Your task to perform on an android device: Go to Amazon Image 0: 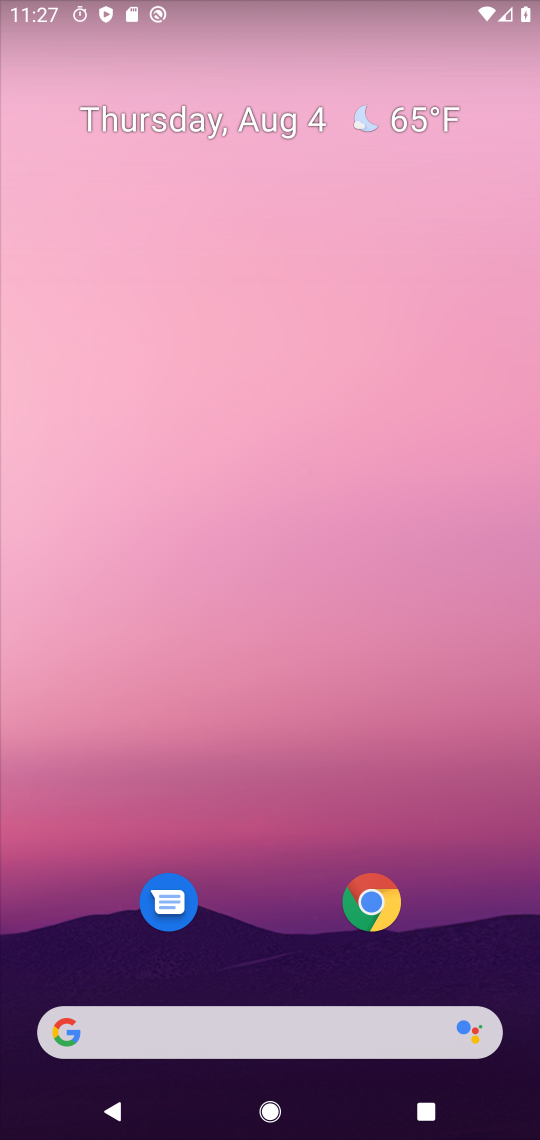
Step 0: press home button
Your task to perform on an android device: Go to Amazon Image 1: 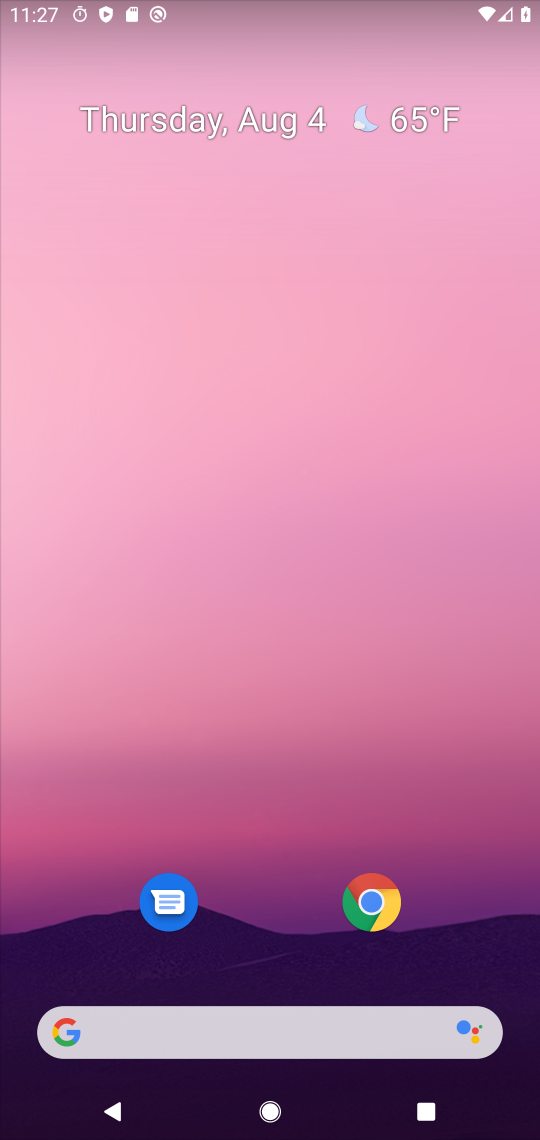
Step 1: drag from (283, 1052) to (268, 298)
Your task to perform on an android device: Go to Amazon Image 2: 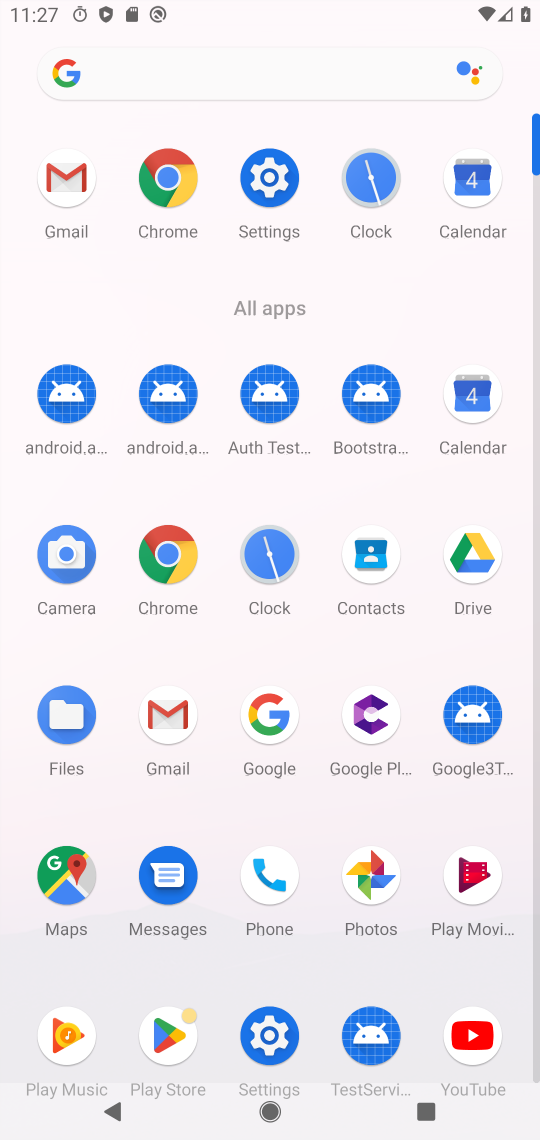
Step 2: click (171, 180)
Your task to perform on an android device: Go to Amazon Image 3: 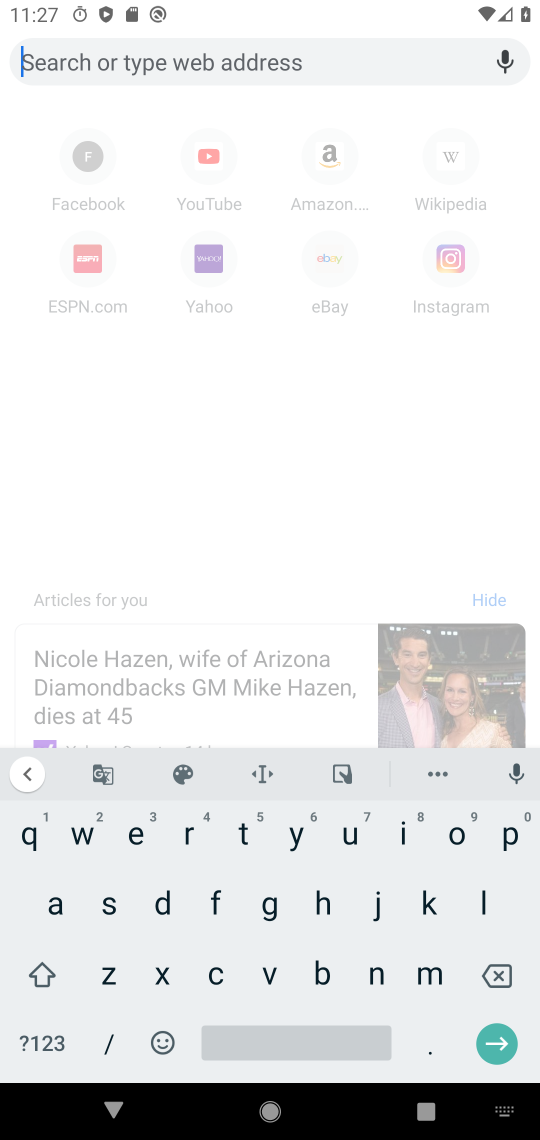
Step 3: press back button
Your task to perform on an android device: Go to Amazon Image 4: 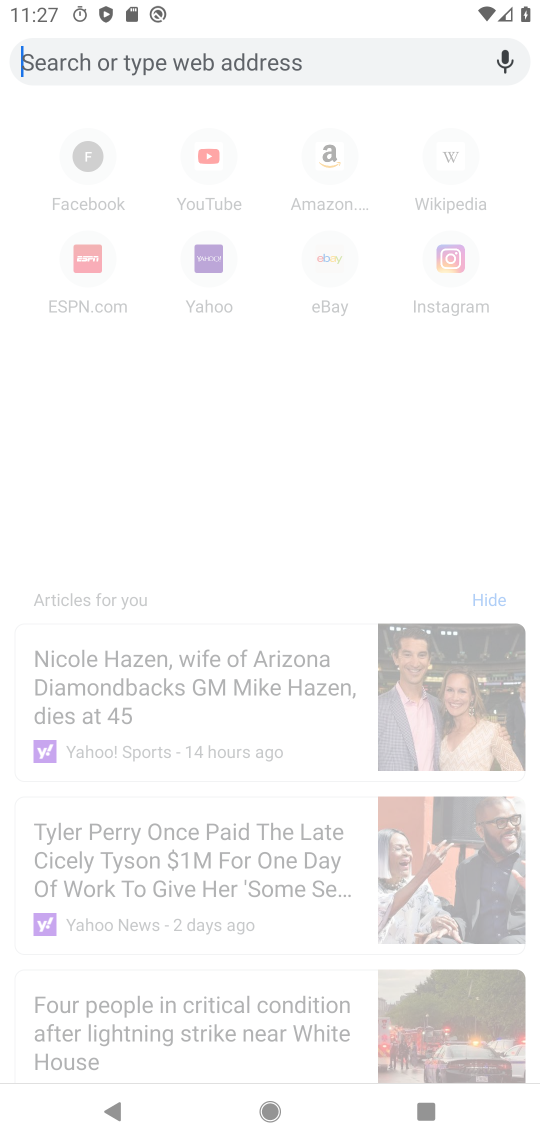
Step 4: click (430, 410)
Your task to perform on an android device: Go to Amazon Image 5: 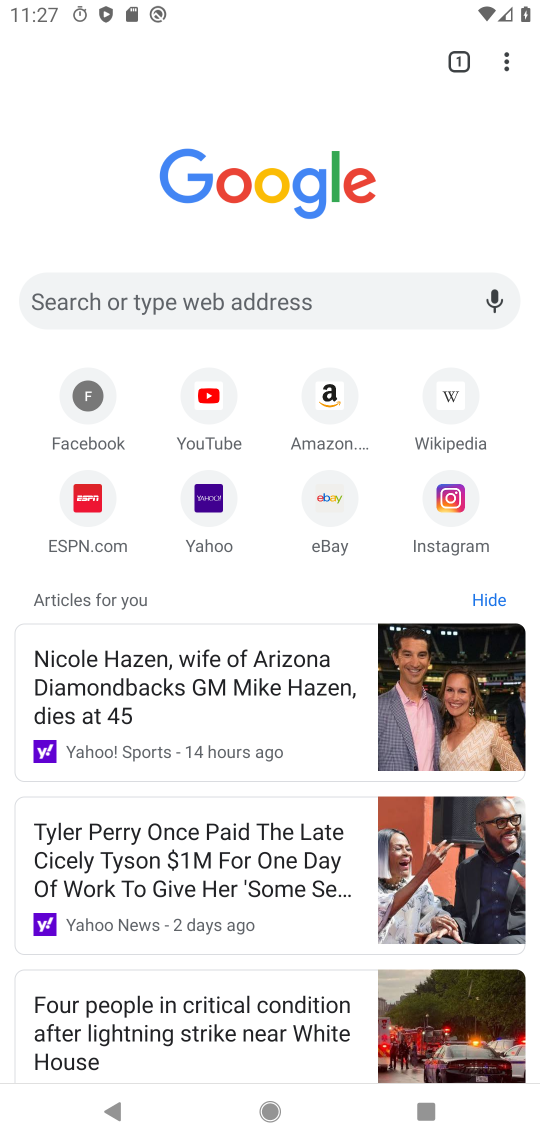
Step 5: press back button
Your task to perform on an android device: Go to Amazon Image 6: 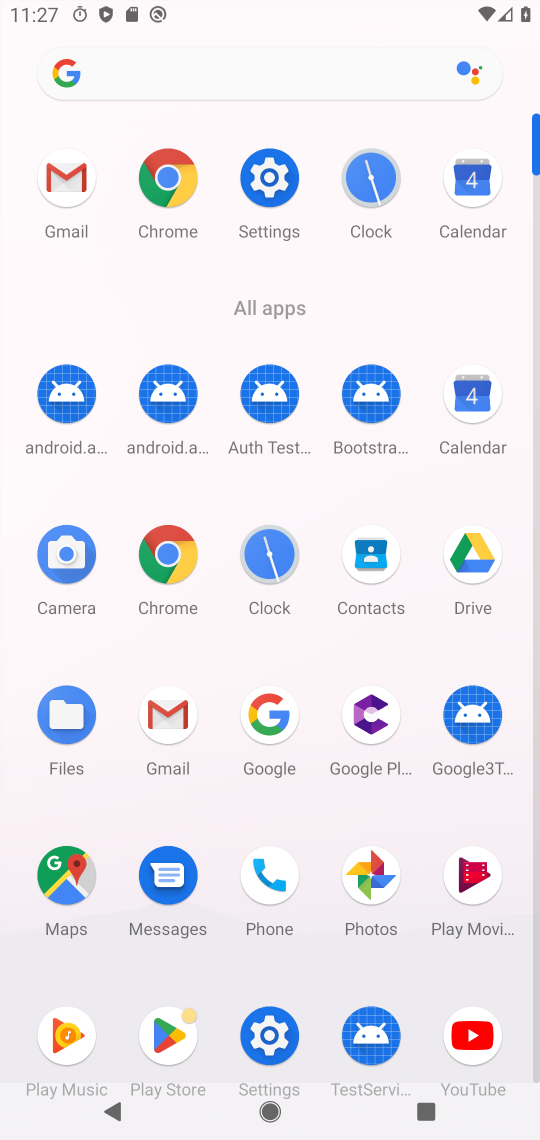
Step 6: click (343, 408)
Your task to perform on an android device: Go to Amazon Image 7: 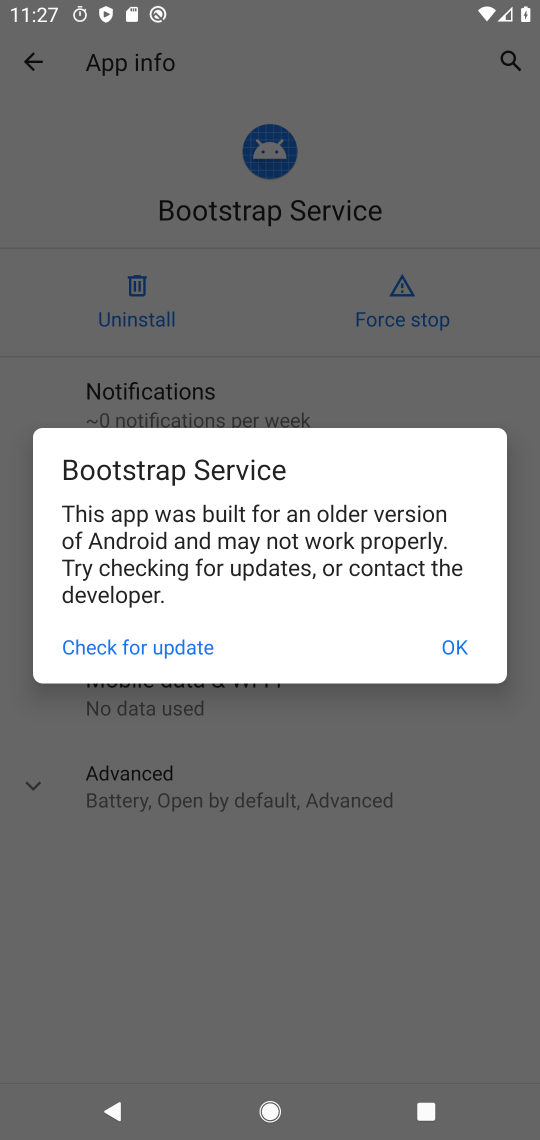
Step 7: press home button
Your task to perform on an android device: Go to Amazon Image 8: 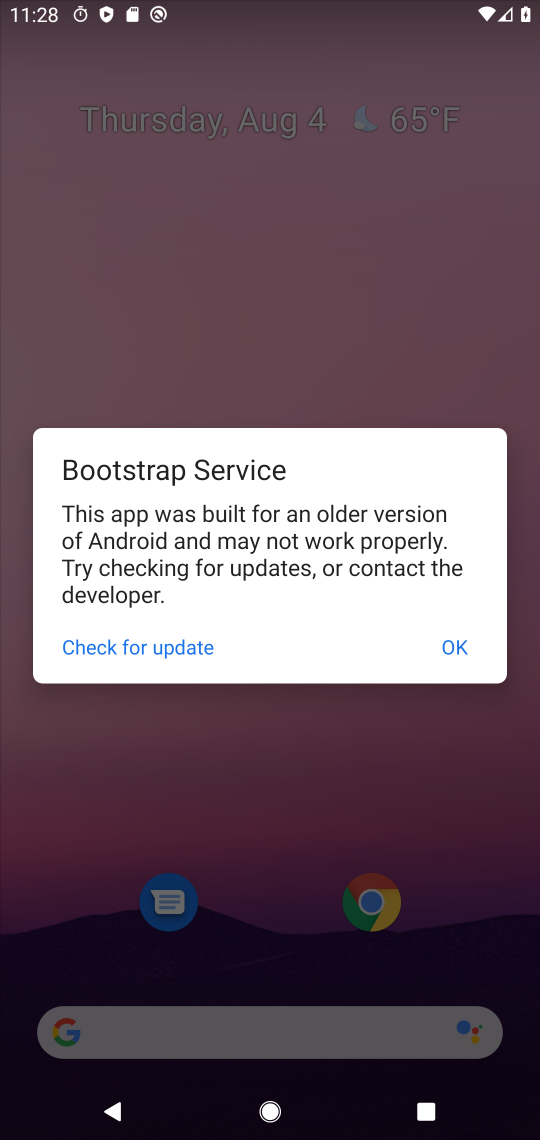
Step 8: click (416, 665)
Your task to perform on an android device: Go to Amazon Image 9: 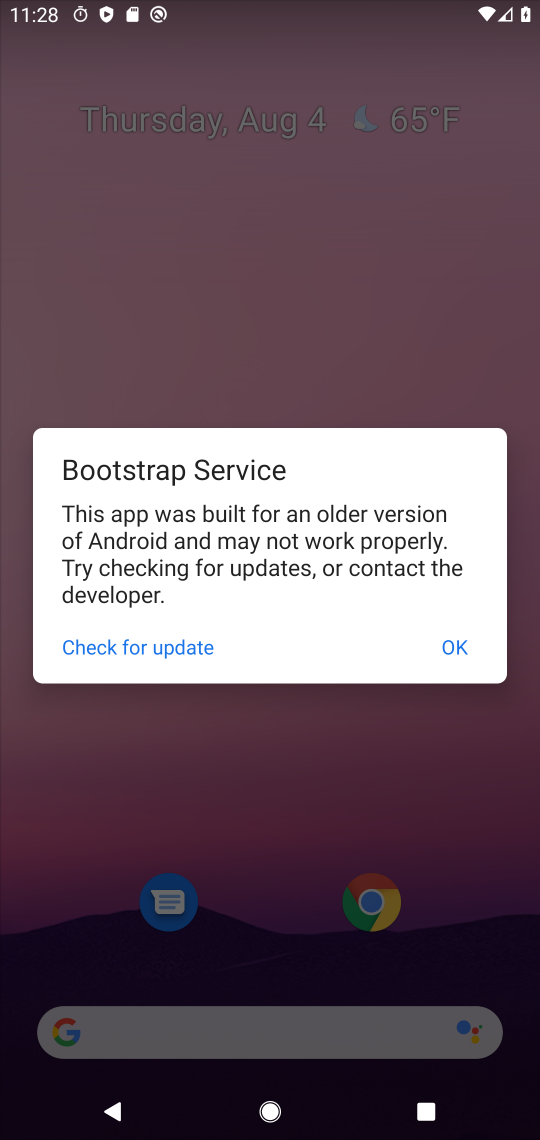
Step 9: click (453, 647)
Your task to perform on an android device: Go to Amazon Image 10: 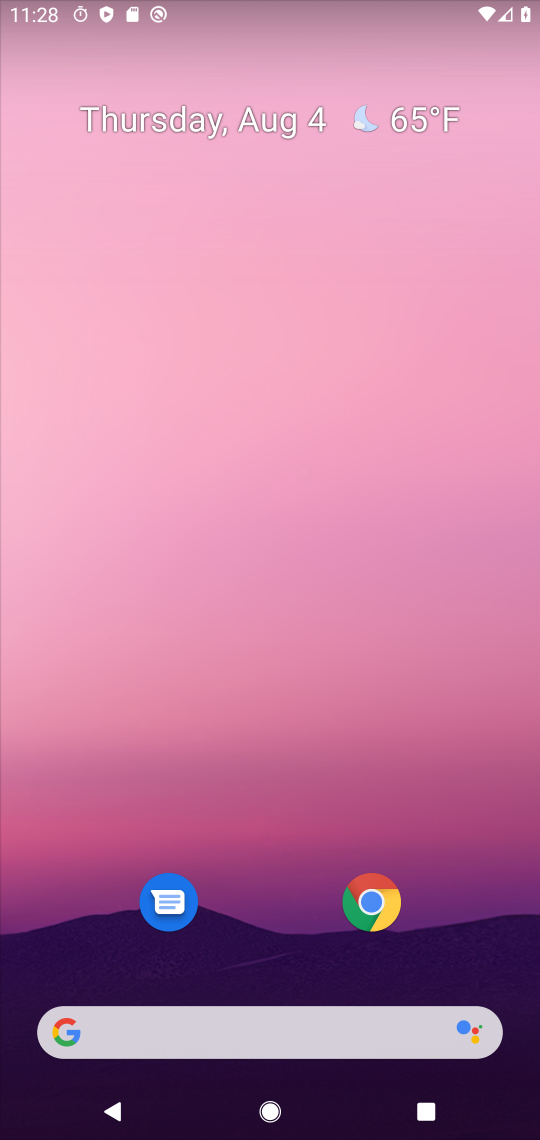
Step 10: drag from (295, 1058) to (362, 228)
Your task to perform on an android device: Go to Amazon Image 11: 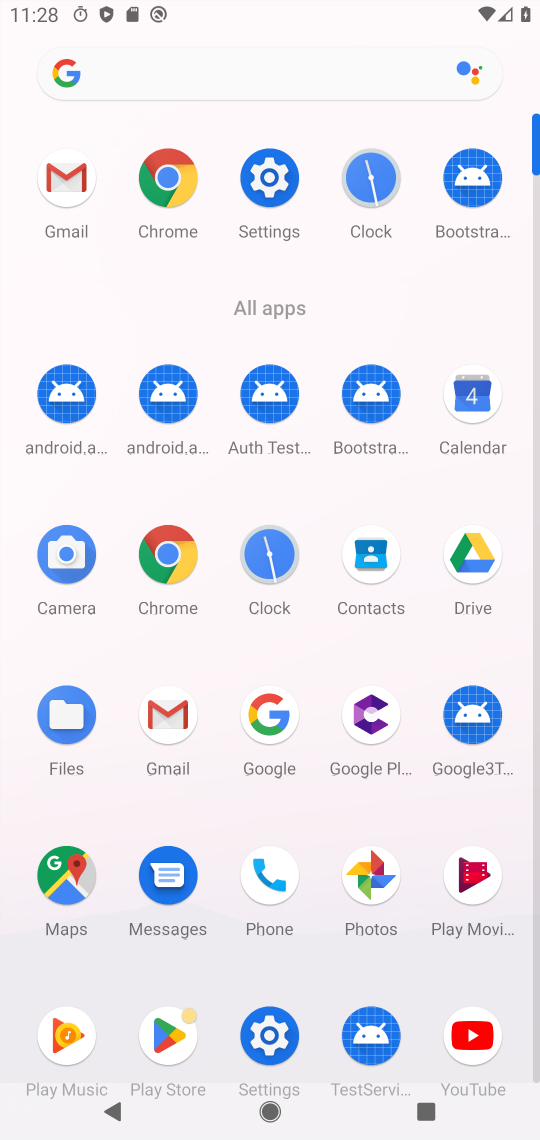
Step 11: click (153, 186)
Your task to perform on an android device: Go to Amazon Image 12: 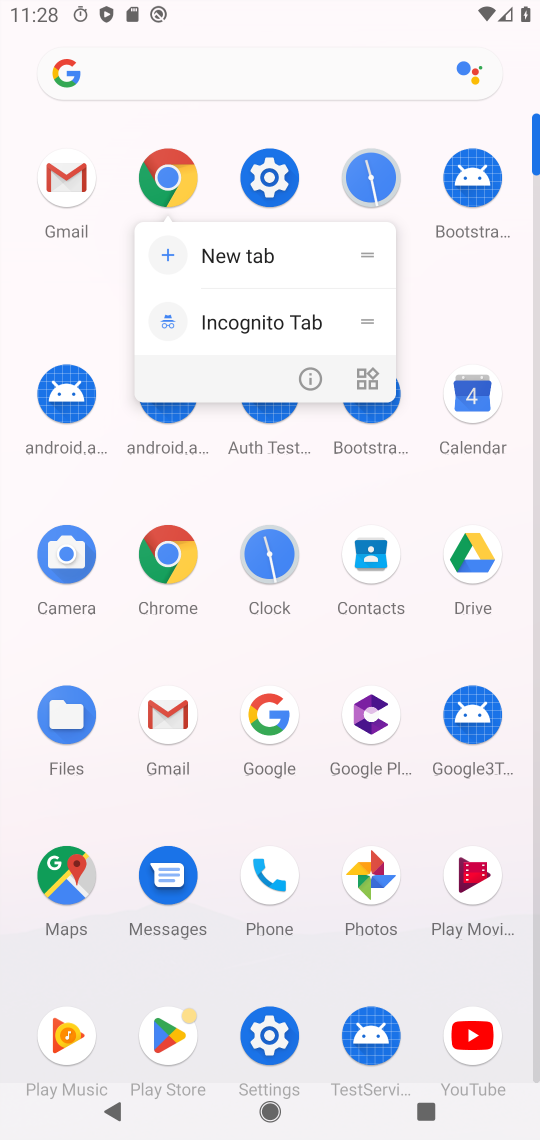
Step 12: click (151, 175)
Your task to perform on an android device: Go to Amazon Image 13: 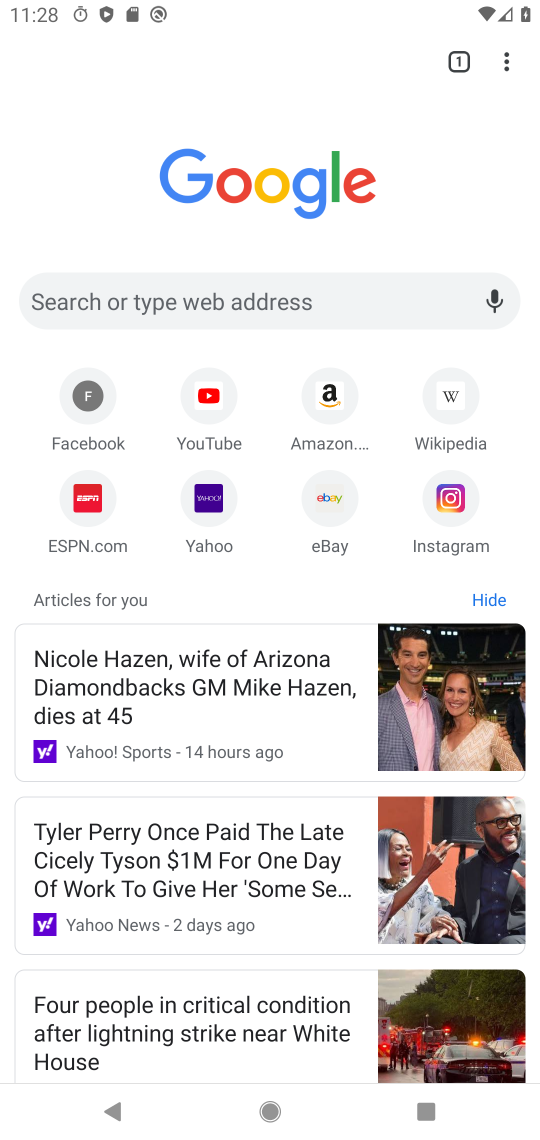
Step 13: click (321, 407)
Your task to perform on an android device: Go to Amazon Image 14: 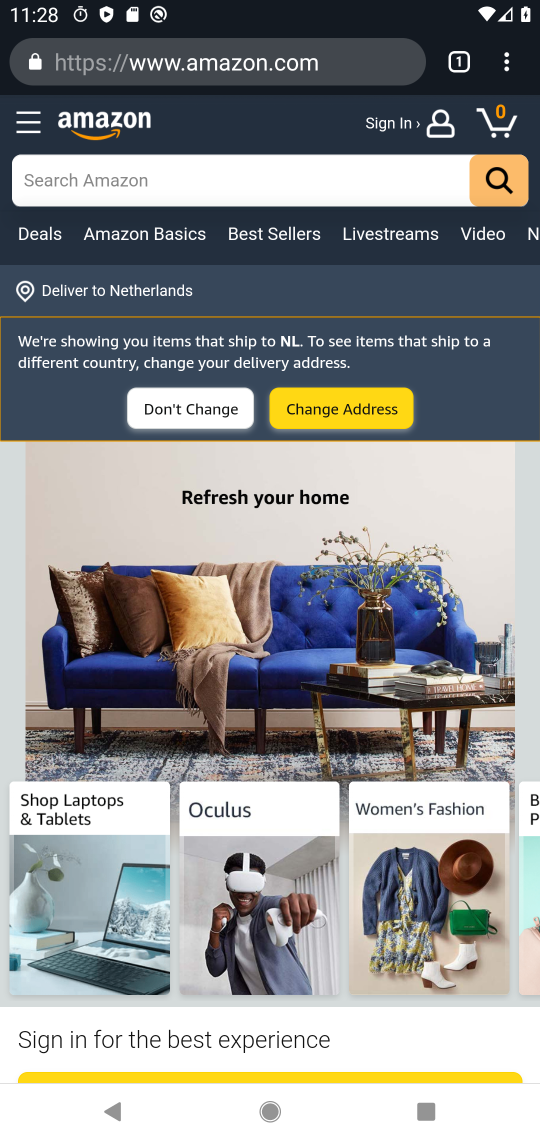
Step 14: task complete